Your task to perform on an android device: snooze an email in the gmail app Image 0: 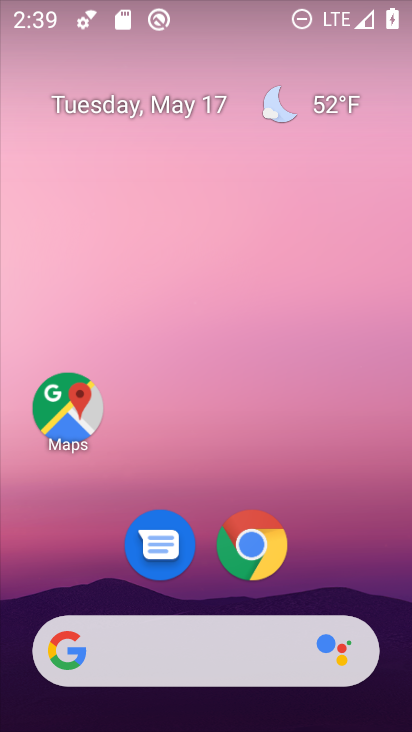
Step 0: drag from (352, 570) to (390, 108)
Your task to perform on an android device: snooze an email in the gmail app Image 1: 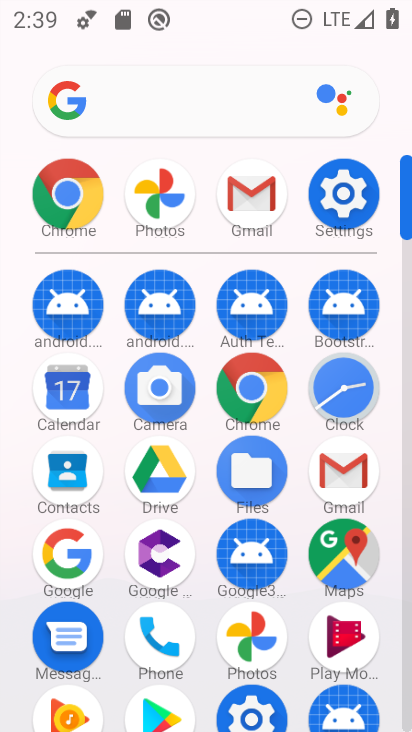
Step 1: click (353, 473)
Your task to perform on an android device: snooze an email in the gmail app Image 2: 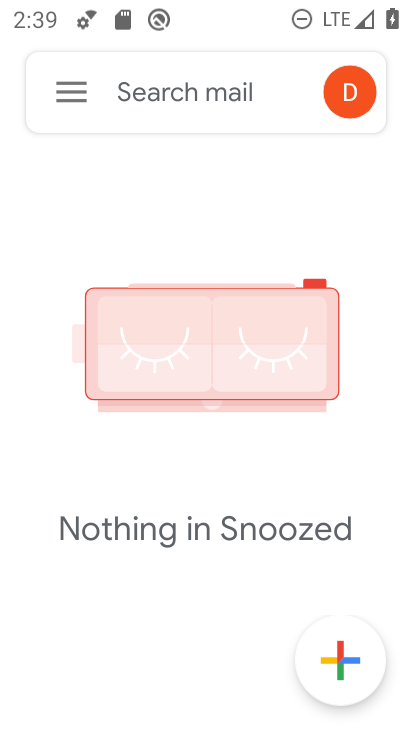
Step 2: click (71, 99)
Your task to perform on an android device: snooze an email in the gmail app Image 3: 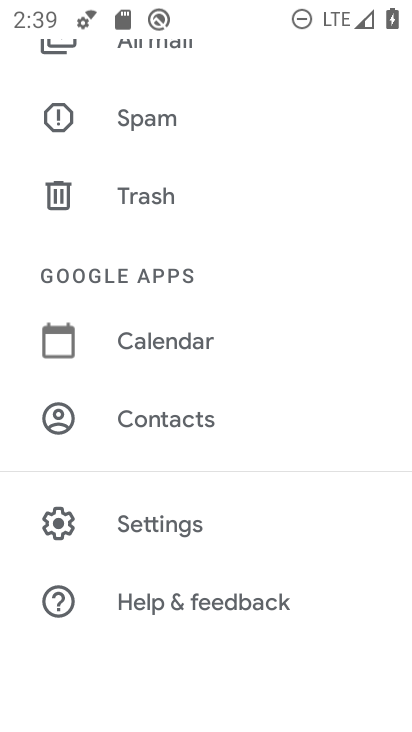
Step 3: drag from (331, 540) to (333, 341)
Your task to perform on an android device: snooze an email in the gmail app Image 4: 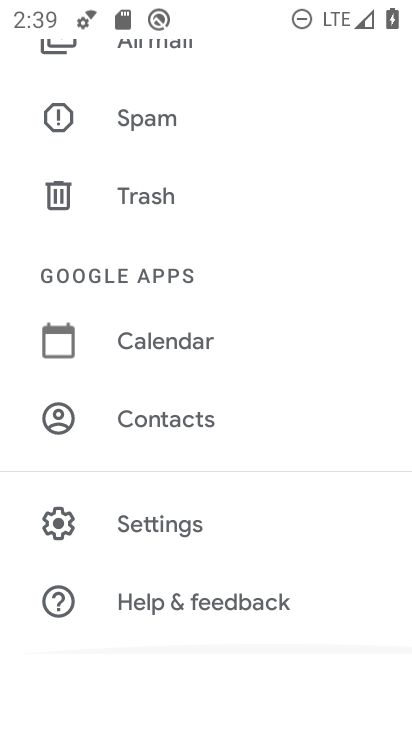
Step 4: drag from (330, 290) to (330, 401)
Your task to perform on an android device: snooze an email in the gmail app Image 5: 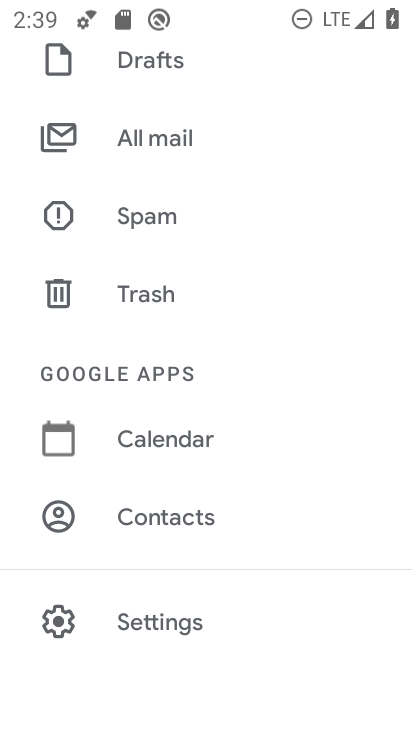
Step 5: drag from (310, 249) to (311, 369)
Your task to perform on an android device: snooze an email in the gmail app Image 6: 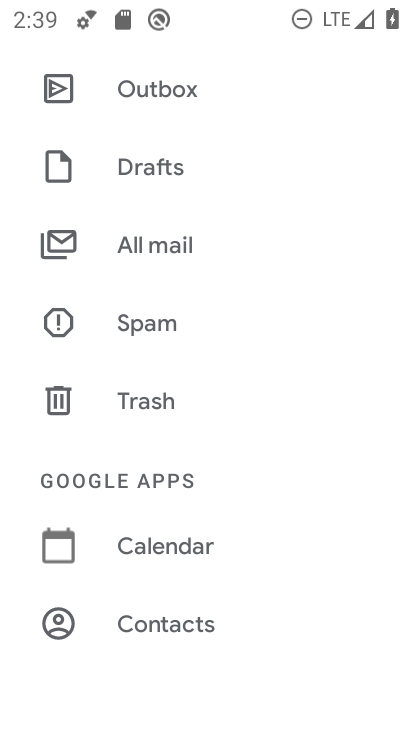
Step 6: drag from (307, 246) to (309, 342)
Your task to perform on an android device: snooze an email in the gmail app Image 7: 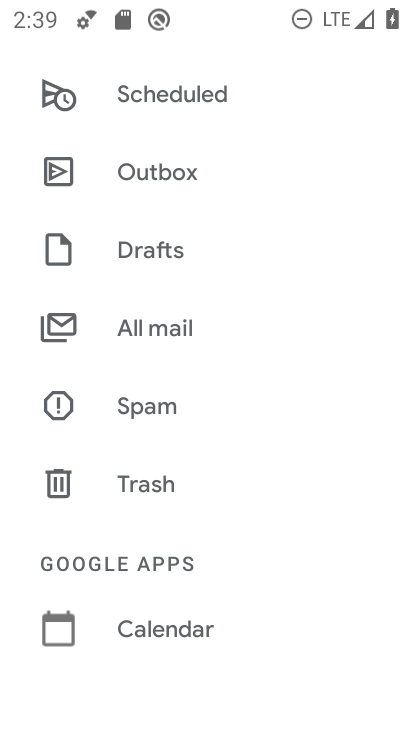
Step 7: drag from (297, 222) to (293, 327)
Your task to perform on an android device: snooze an email in the gmail app Image 8: 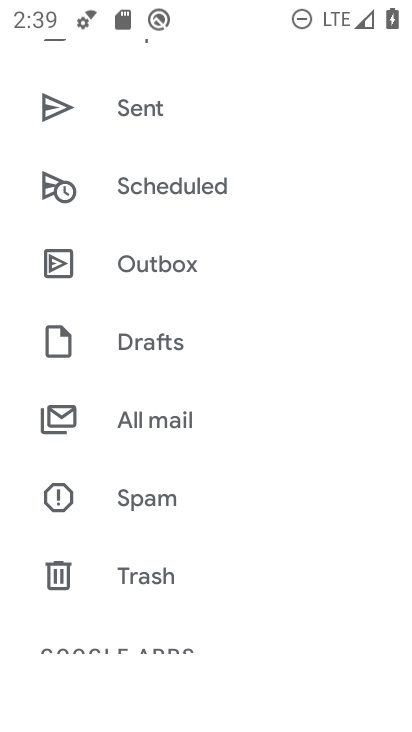
Step 8: drag from (289, 182) to (292, 301)
Your task to perform on an android device: snooze an email in the gmail app Image 9: 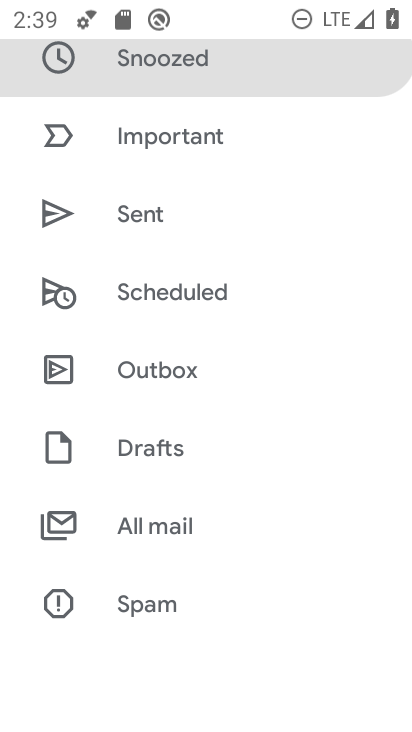
Step 9: drag from (298, 159) to (303, 264)
Your task to perform on an android device: snooze an email in the gmail app Image 10: 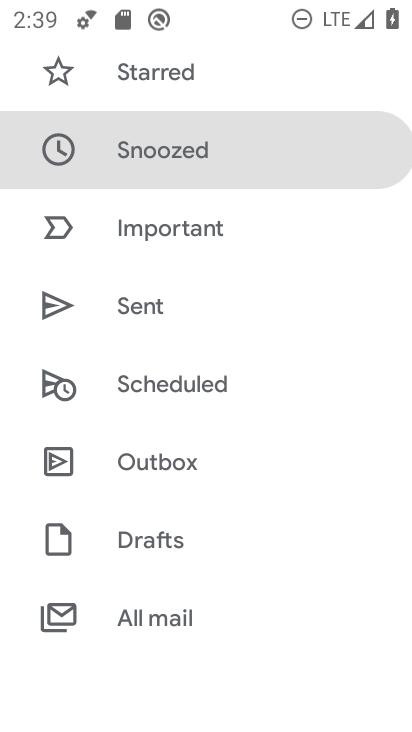
Step 10: drag from (298, 140) to (311, 265)
Your task to perform on an android device: snooze an email in the gmail app Image 11: 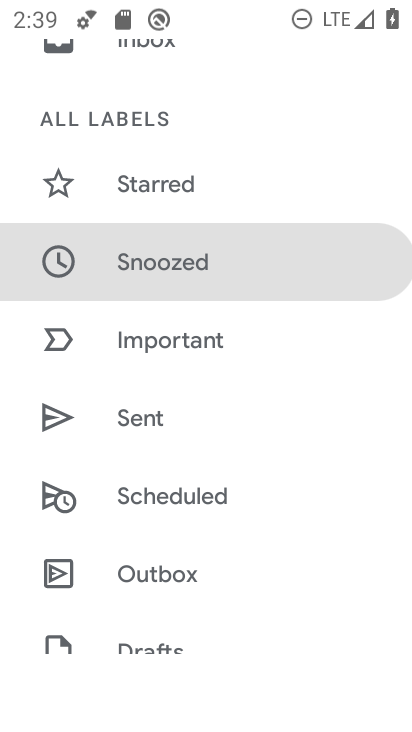
Step 11: drag from (286, 139) to (294, 242)
Your task to perform on an android device: snooze an email in the gmail app Image 12: 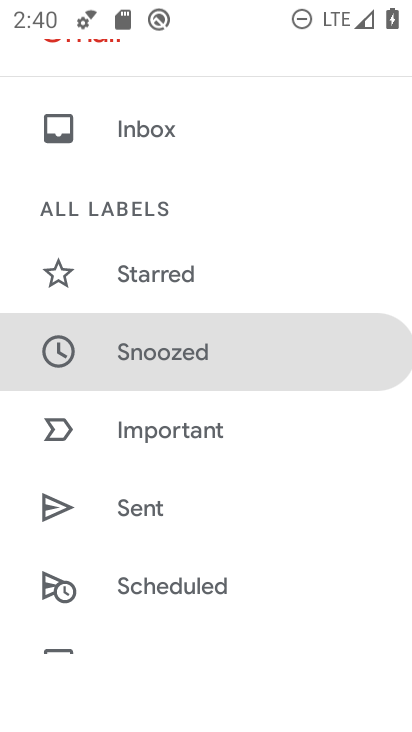
Step 12: click (275, 361)
Your task to perform on an android device: snooze an email in the gmail app Image 13: 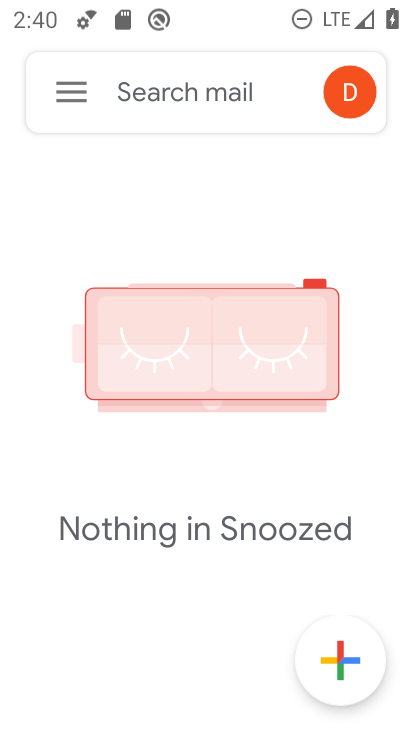
Step 13: task complete